Your task to perform on an android device: Search for Mexican restaurants on Maps Image 0: 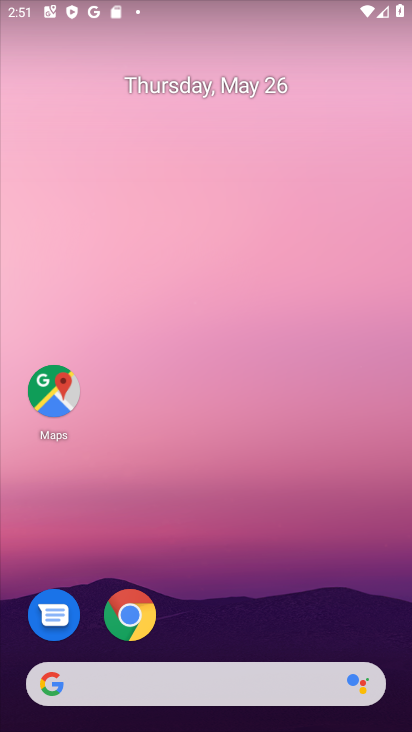
Step 0: click (64, 415)
Your task to perform on an android device: Search for Mexican restaurants on Maps Image 1: 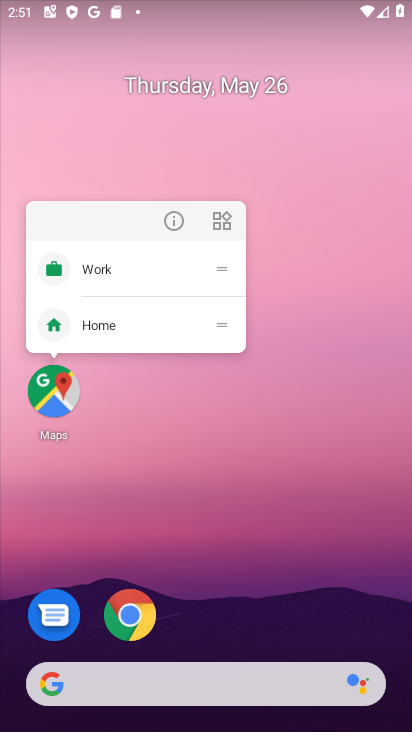
Step 1: click (56, 400)
Your task to perform on an android device: Search for Mexican restaurants on Maps Image 2: 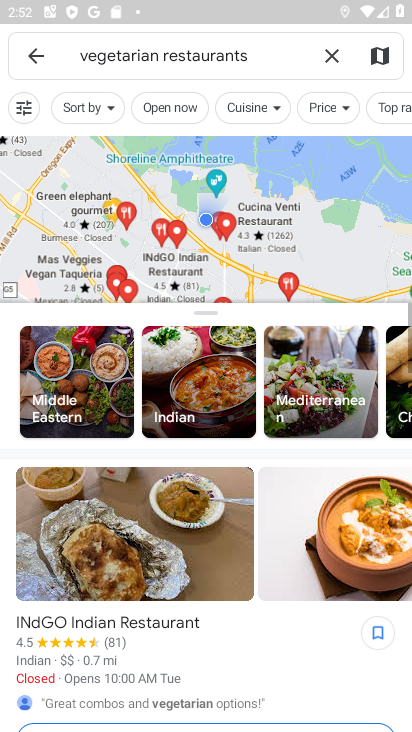
Step 2: click (336, 61)
Your task to perform on an android device: Search for Mexican restaurants on Maps Image 3: 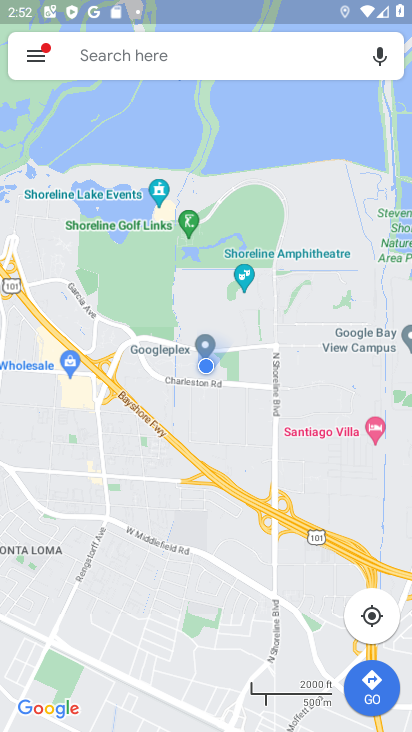
Step 3: click (140, 57)
Your task to perform on an android device: Search for Mexican restaurants on Maps Image 4: 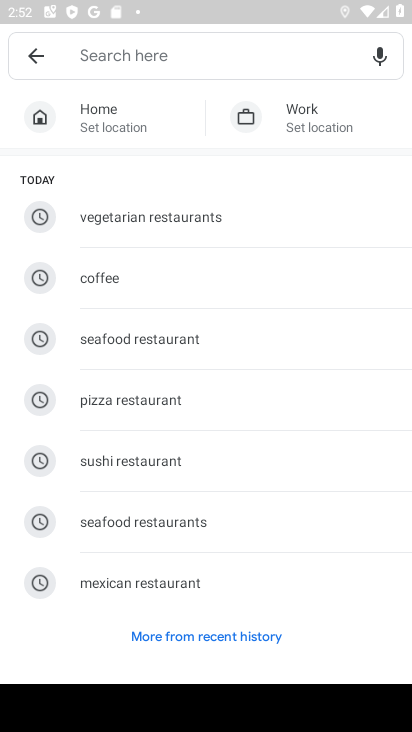
Step 4: click (168, 584)
Your task to perform on an android device: Search for Mexican restaurants on Maps Image 5: 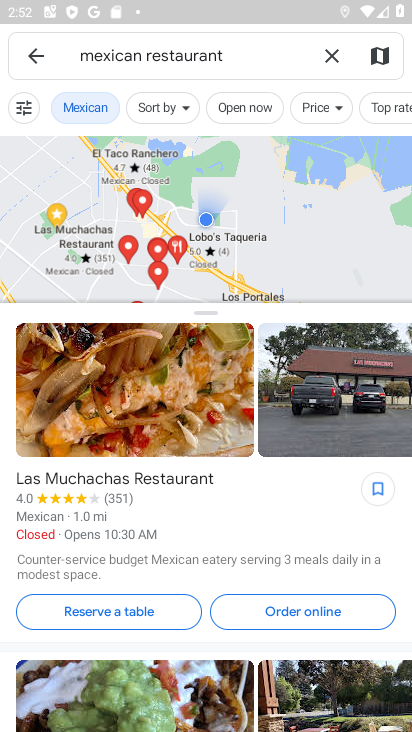
Step 5: task complete